Your task to perform on an android device: turn on the 24-hour format for clock Image 0: 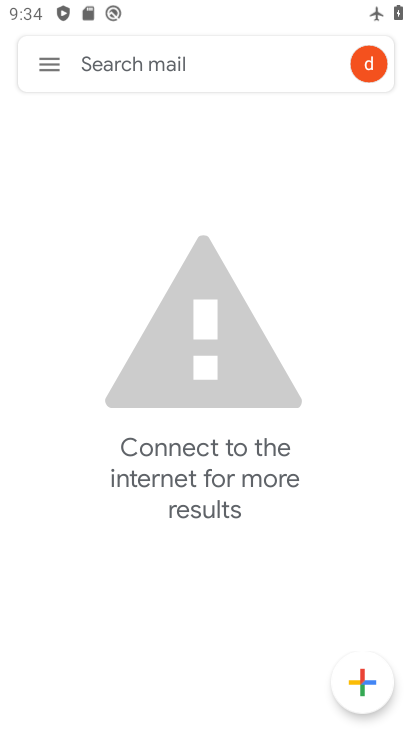
Step 0: press home button
Your task to perform on an android device: turn on the 24-hour format for clock Image 1: 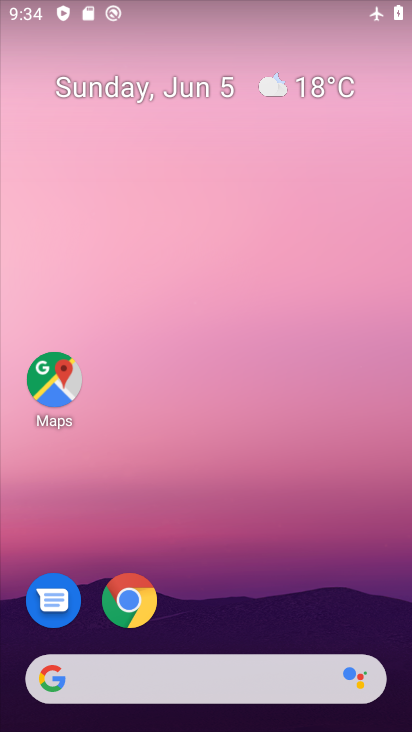
Step 1: drag from (248, 610) to (247, 165)
Your task to perform on an android device: turn on the 24-hour format for clock Image 2: 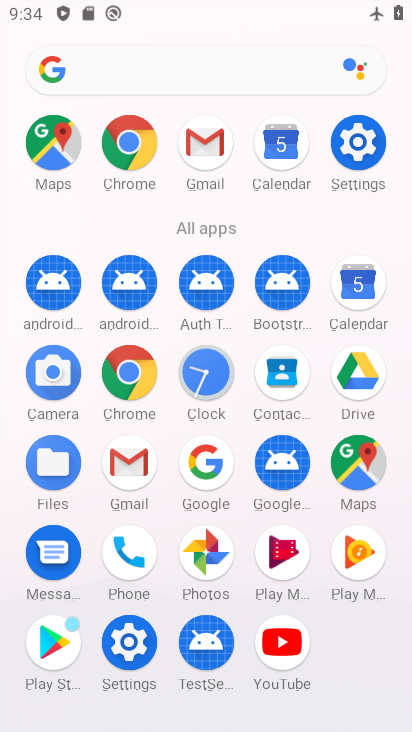
Step 2: click (196, 381)
Your task to perform on an android device: turn on the 24-hour format for clock Image 3: 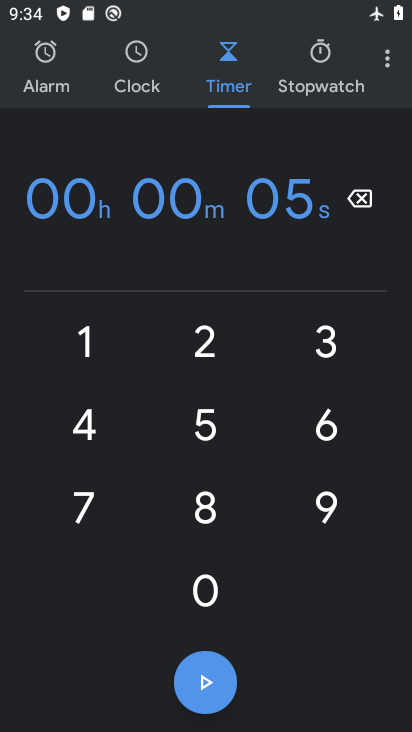
Step 3: click (387, 62)
Your task to perform on an android device: turn on the 24-hour format for clock Image 4: 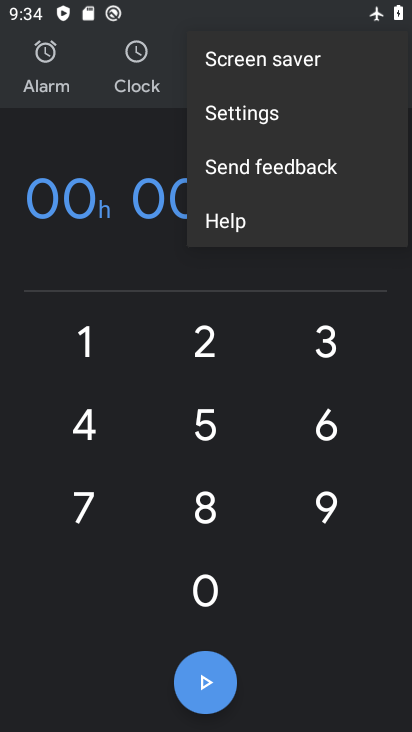
Step 4: click (244, 129)
Your task to perform on an android device: turn on the 24-hour format for clock Image 5: 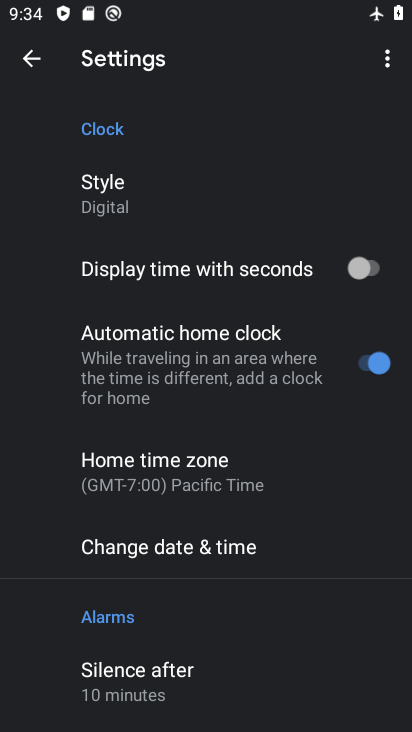
Step 5: click (181, 553)
Your task to perform on an android device: turn on the 24-hour format for clock Image 6: 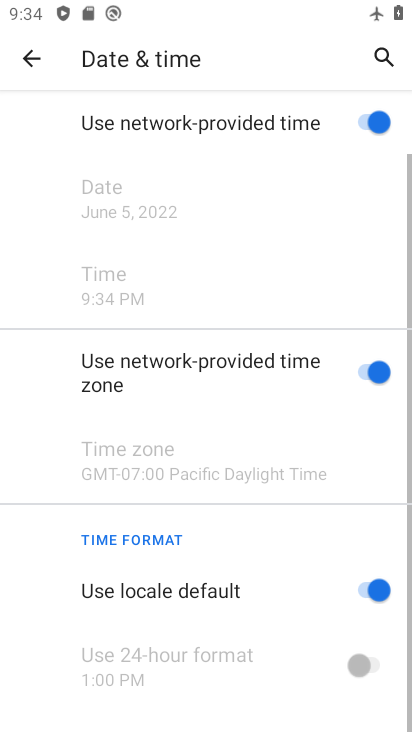
Step 6: drag from (182, 548) to (230, 111)
Your task to perform on an android device: turn on the 24-hour format for clock Image 7: 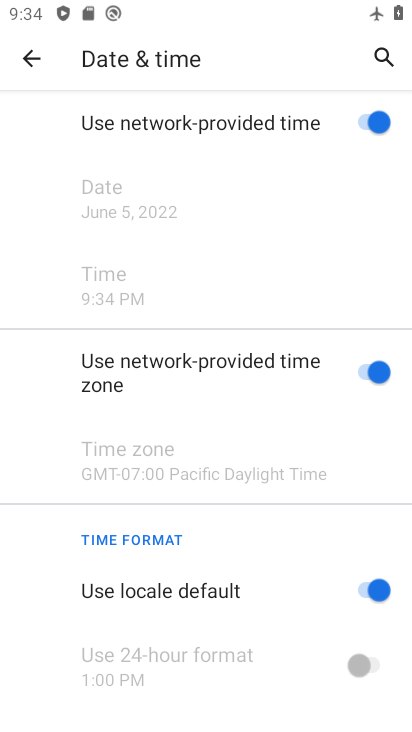
Step 7: click (358, 585)
Your task to perform on an android device: turn on the 24-hour format for clock Image 8: 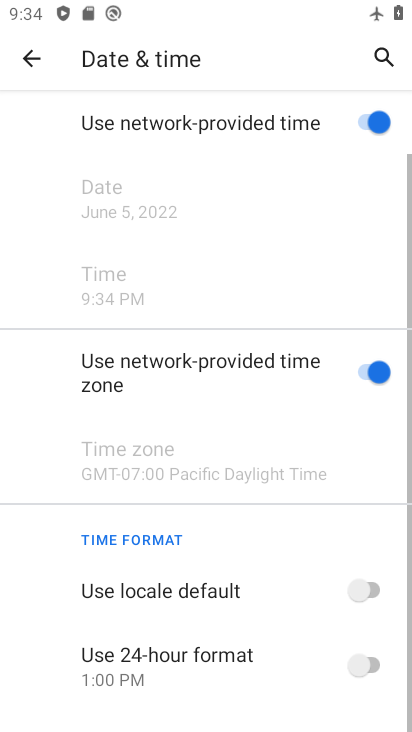
Step 8: click (366, 665)
Your task to perform on an android device: turn on the 24-hour format for clock Image 9: 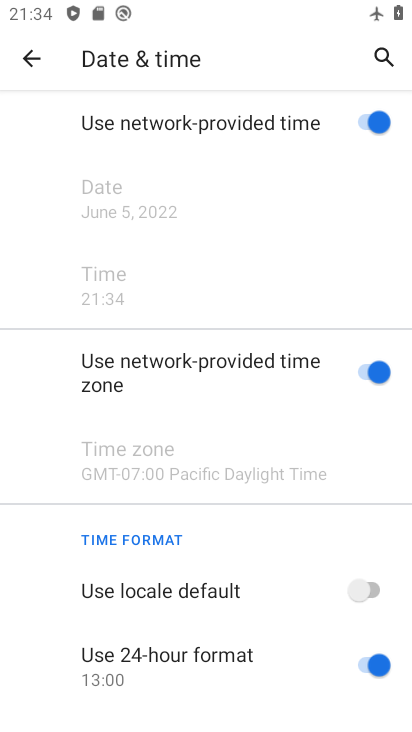
Step 9: task complete